Your task to perform on an android device: Open calendar and show me the third week of next month Image 0: 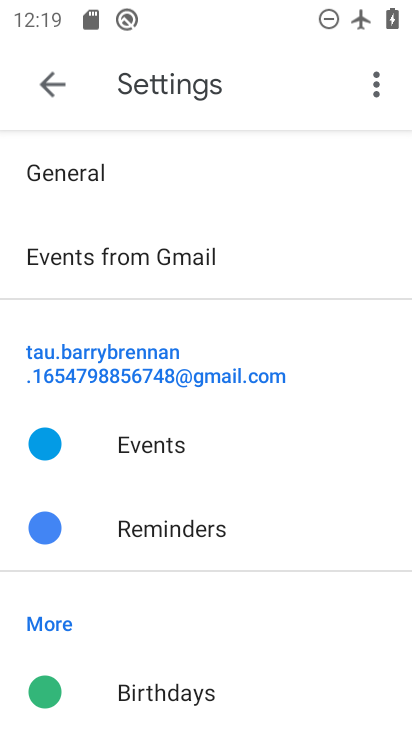
Step 0: press home button
Your task to perform on an android device: Open calendar and show me the third week of next month Image 1: 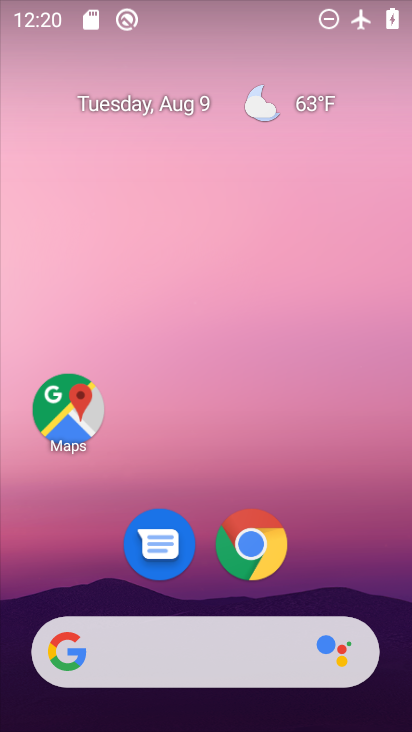
Step 1: drag from (162, 665) to (235, 33)
Your task to perform on an android device: Open calendar and show me the third week of next month Image 2: 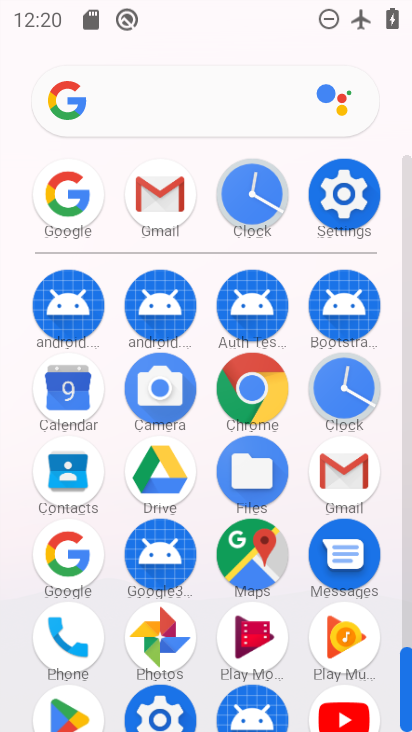
Step 2: click (67, 394)
Your task to perform on an android device: Open calendar and show me the third week of next month Image 3: 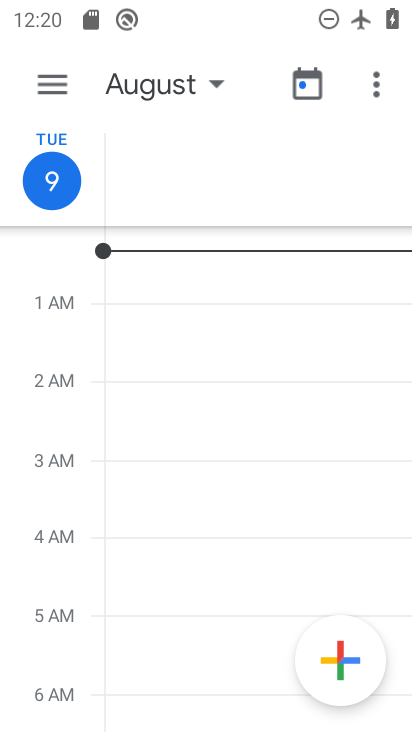
Step 3: click (220, 74)
Your task to perform on an android device: Open calendar and show me the third week of next month Image 4: 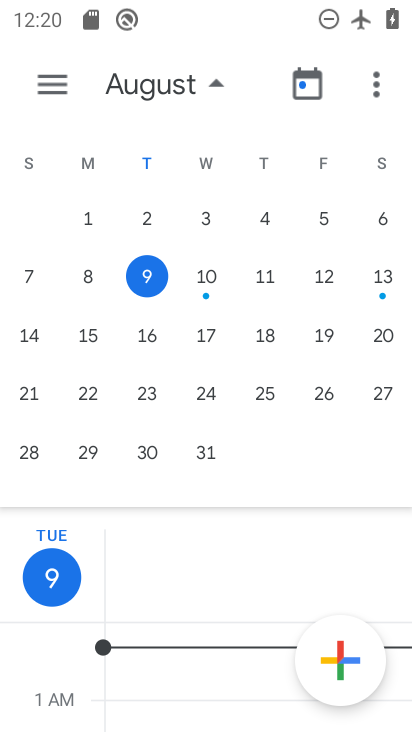
Step 4: drag from (355, 339) to (10, 389)
Your task to perform on an android device: Open calendar and show me the third week of next month Image 5: 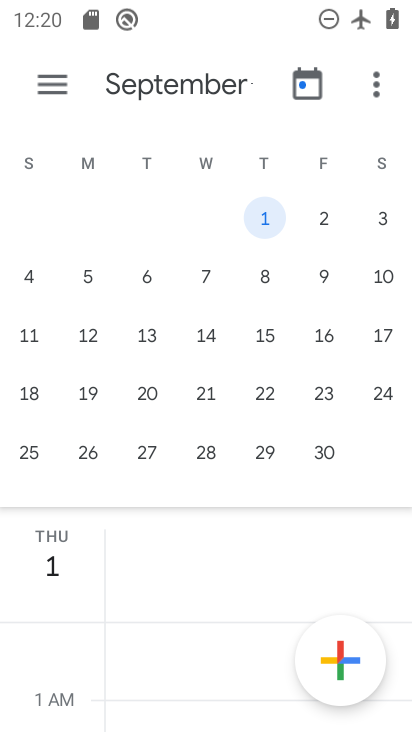
Step 5: click (89, 386)
Your task to perform on an android device: Open calendar and show me the third week of next month Image 6: 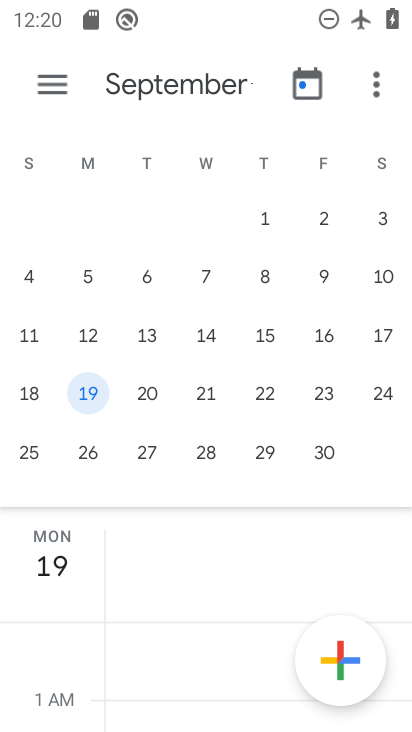
Step 6: click (44, 87)
Your task to perform on an android device: Open calendar and show me the third week of next month Image 7: 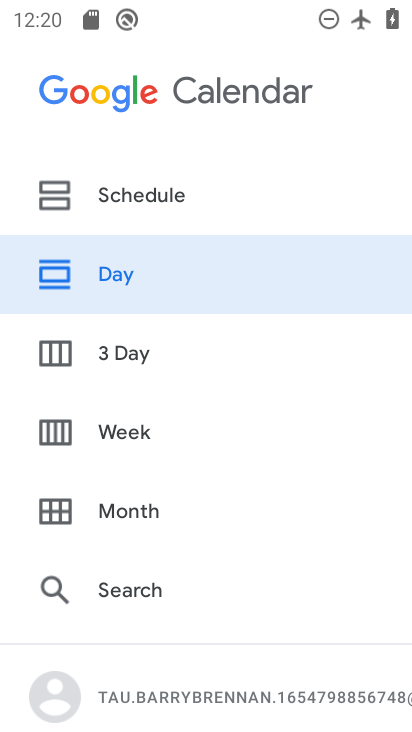
Step 7: click (115, 429)
Your task to perform on an android device: Open calendar and show me the third week of next month Image 8: 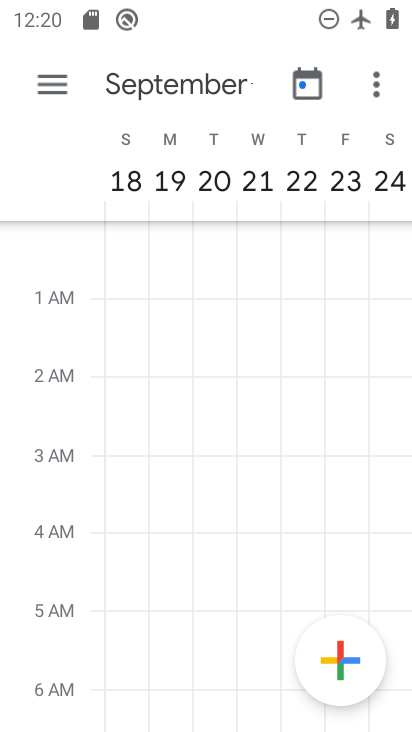
Step 8: task complete